Your task to perform on an android device: set default search engine in the chrome app Image 0: 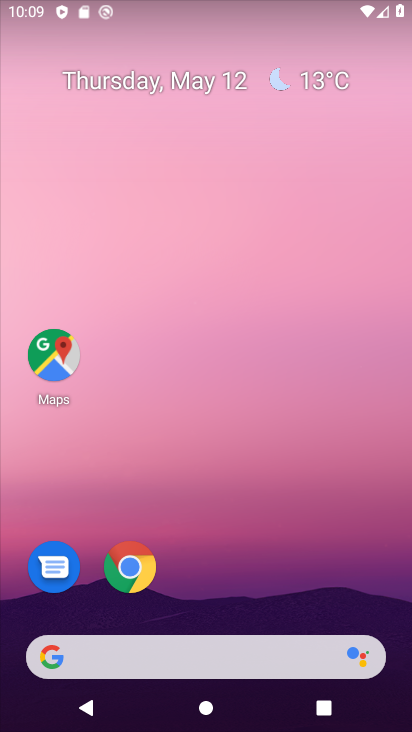
Step 0: click (133, 576)
Your task to perform on an android device: set default search engine in the chrome app Image 1: 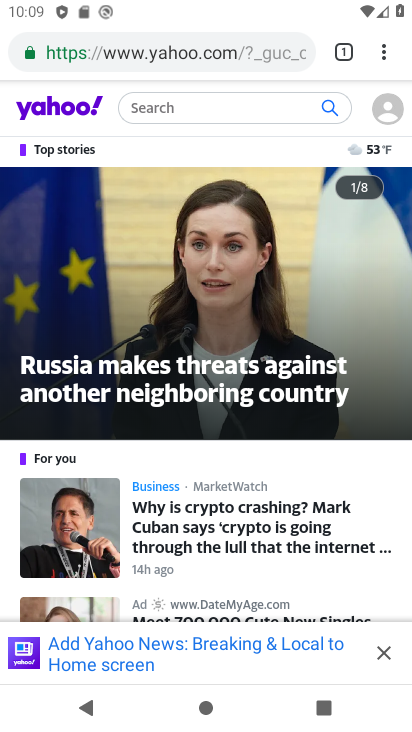
Step 1: press home button
Your task to perform on an android device: set default search engine in the chrome app Image 2: 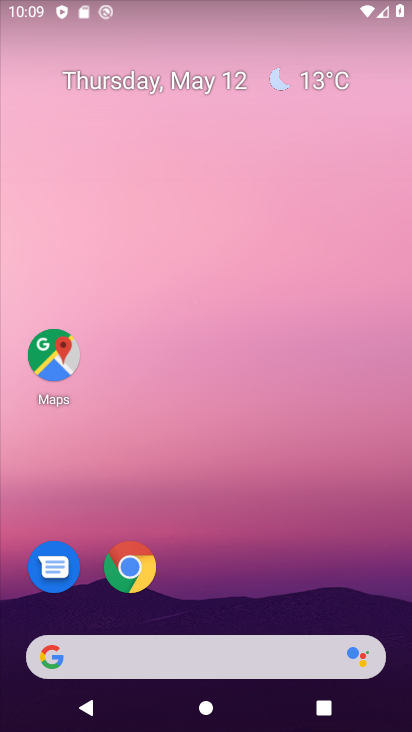
Step 2: click (115, 577)
Your task to perform on an android device: set default search engine in the chrome app Image 3: 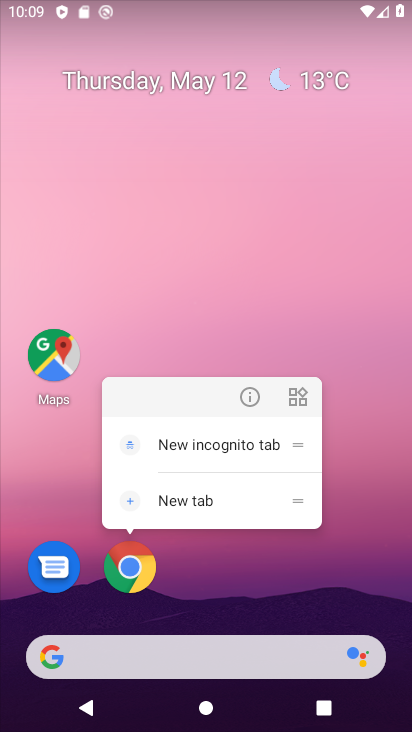
Step 3: click (131, 572)
Your task to perform on an android device: set default search engine in the chrome app Image 4: 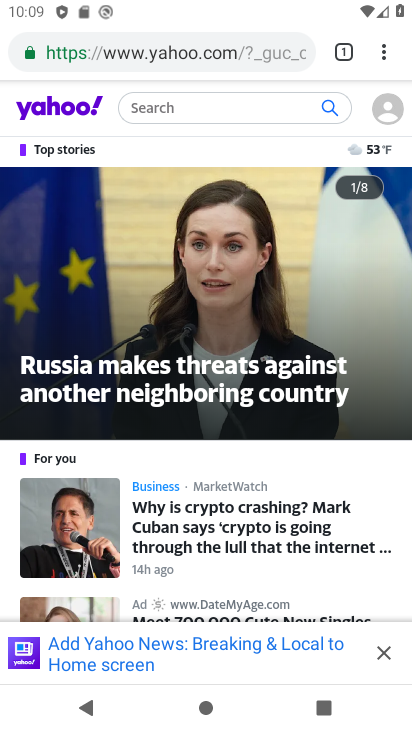
Step 4: drag from (383, 47) to (236, 575)
Your task to perform on an android device: set default search engine in the chrome app Image 5: 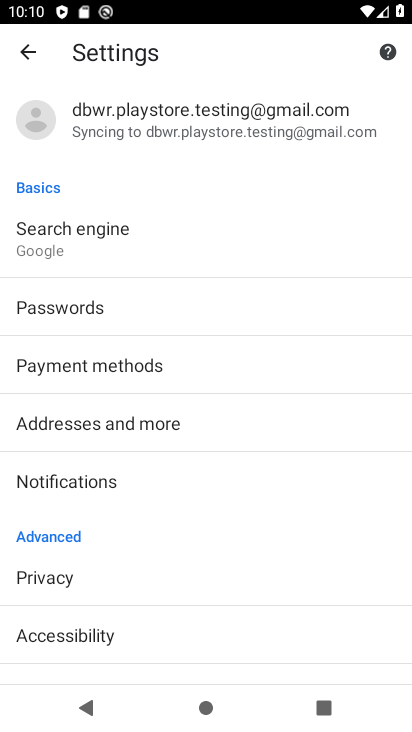
Step 5: drag from (180, 508) to (195, 369)
Your task to perform on an android device: set default search engine in the chrome app Image 6: 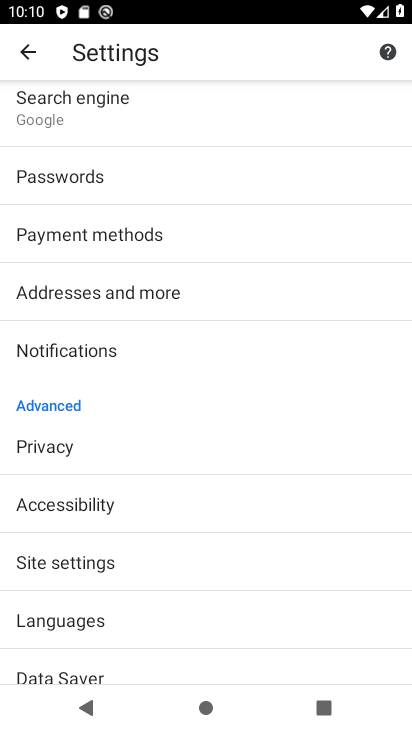
Step 6: drag from (109, 221) to (114, 322)
Your task to perform on an android device: set default search engine in the chrome app Image 7: 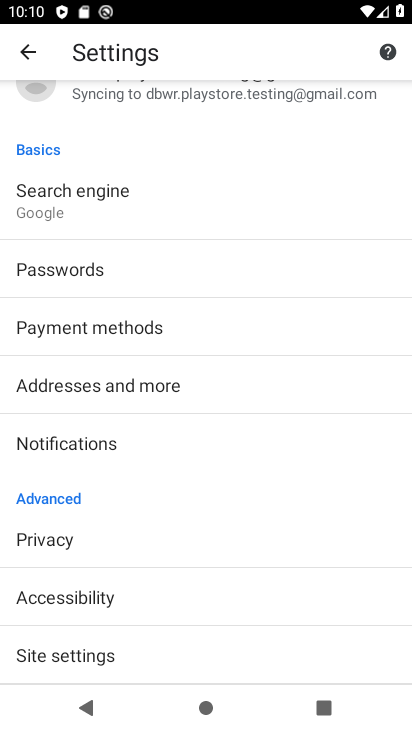
Step 7: click (92, 221)
Your task to perform on an android device: set default search engine in the chrome app Image 8: 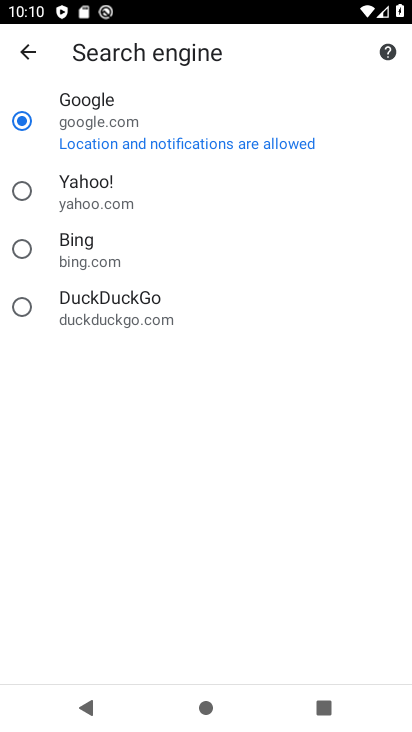
Step 8: click (90, 264)
Your task to perform on an android device: set default search engine in the chrome app Image 9: 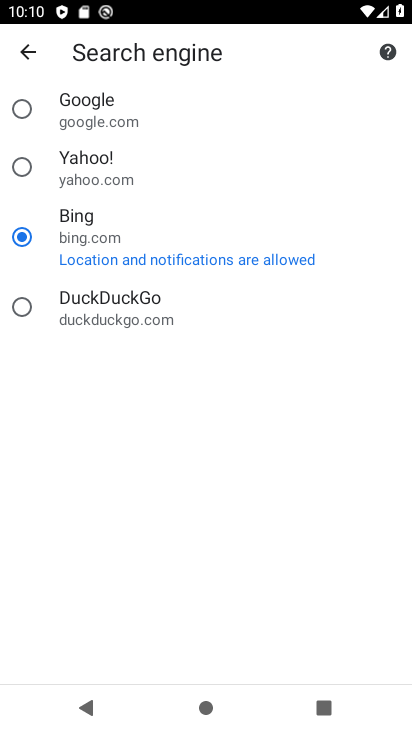
Step 9: task complete